Your task to perform on an android device: set the timer Image 0: 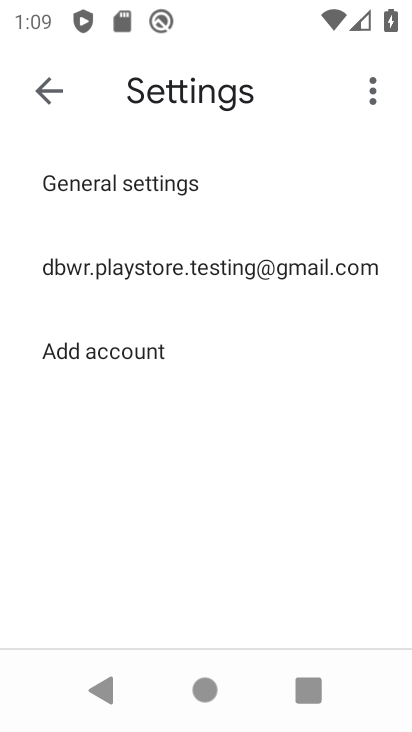
Step 0: press home button
Your task to perform on an android device: set the timer Image 1: 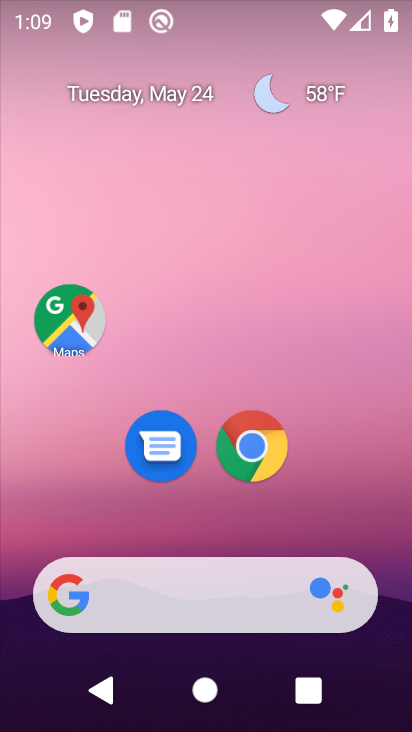
Step 1: drag from (288, 584) to (279, 183)
Your task to perform on an android device: set the timer Image 2: 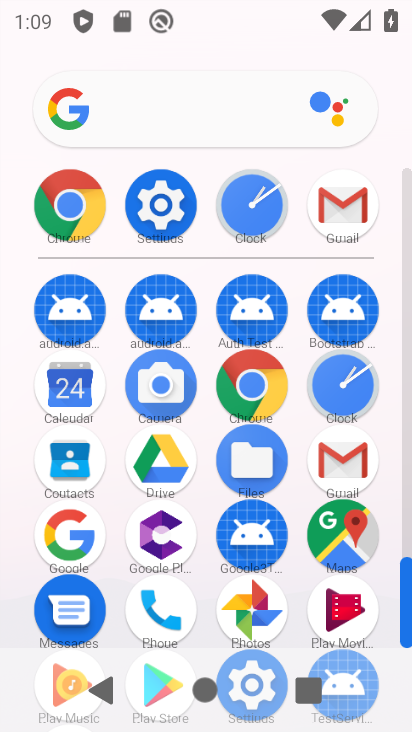
Step 2: click (249, 208)
Your task to perform on an android device: set the timer Image 3: 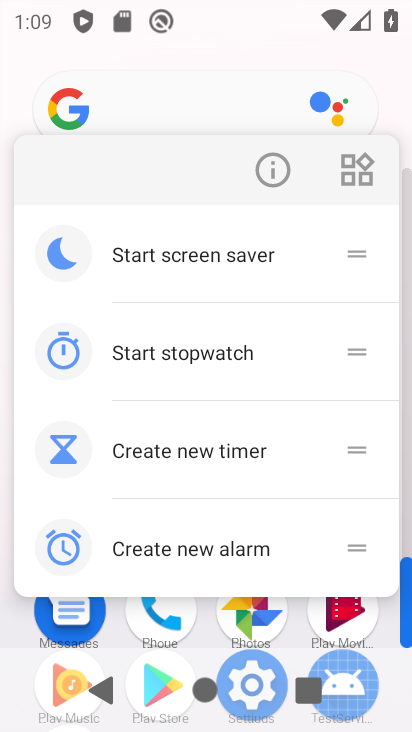
Step 3: click (241, 96)
Your task to perform on an android device: set the timer Image 4: 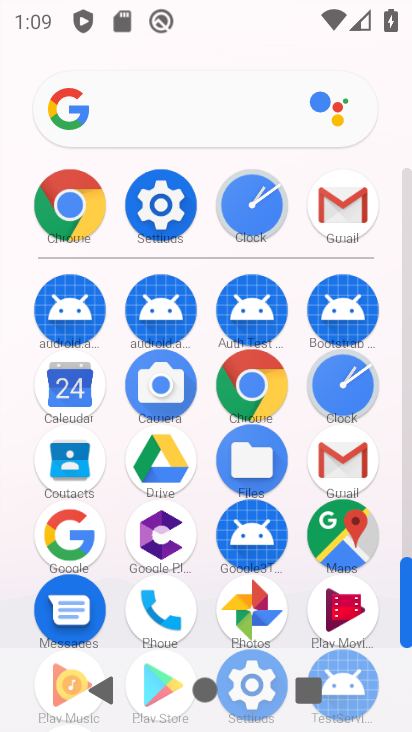
Step 4: click (257, 206)
Your task to perform on an android device: set the timer Image 5: 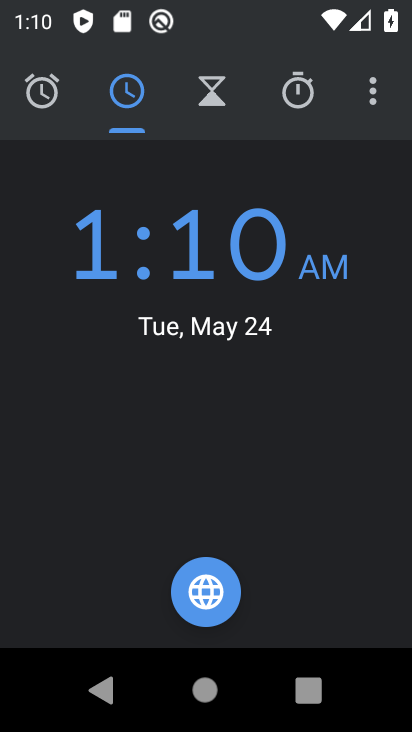
Step 5: click (278, 128)
Your task to perform on an android device: set the timer Image 6: 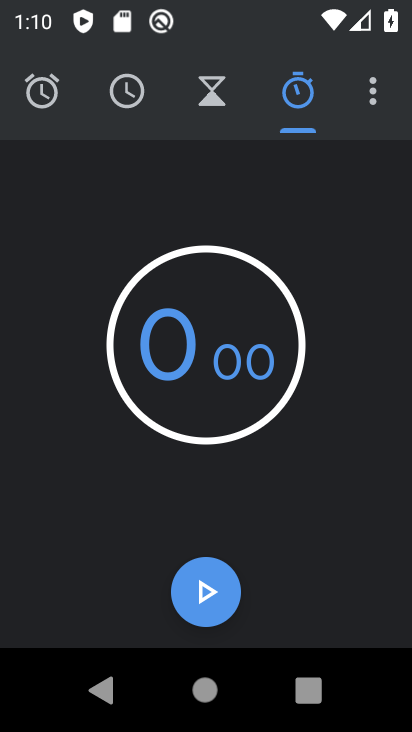
Step 6: click (228, 106)
Your task to perform on an android device: set the timer Image 7: 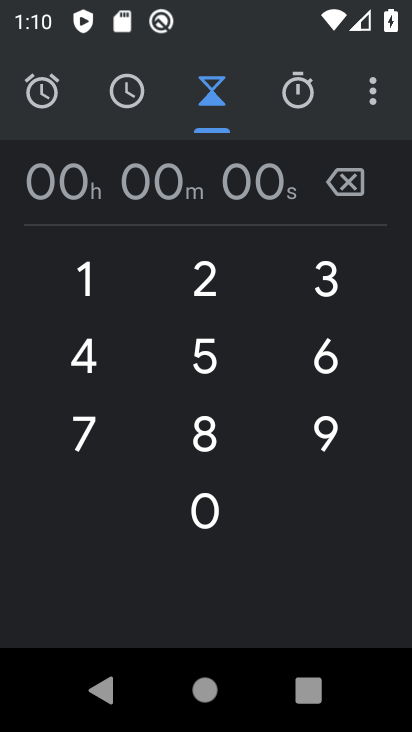
Step 7: click (210, 278)
Your task to perform on an android device: set the timer Image 8: 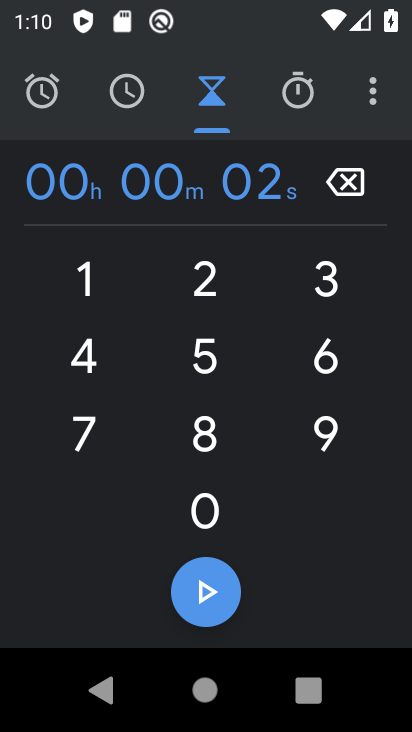
Step 8: click (212, 593)
Your task to perform on an android device: set the timer Image 9: 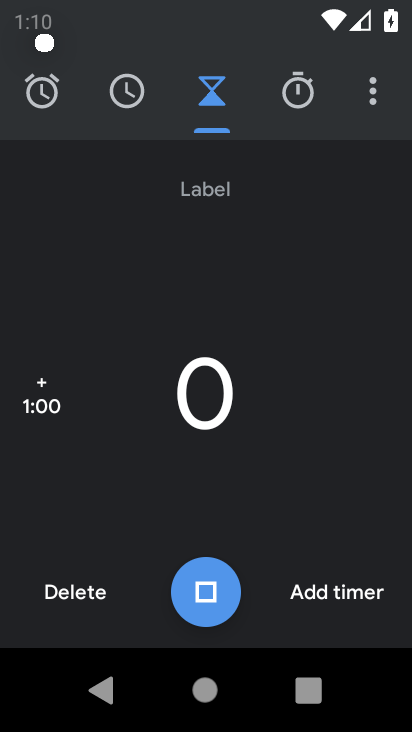
Step 9: task complete